Your task to perform on an android device: Go to ESPN.com Image 0: 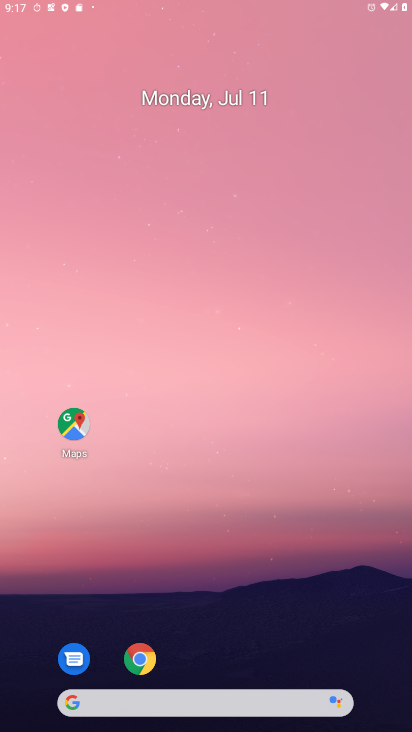
Step 0: click (355, 133)
Your task to perform on an android device: Go to ESPN.com Image 1: 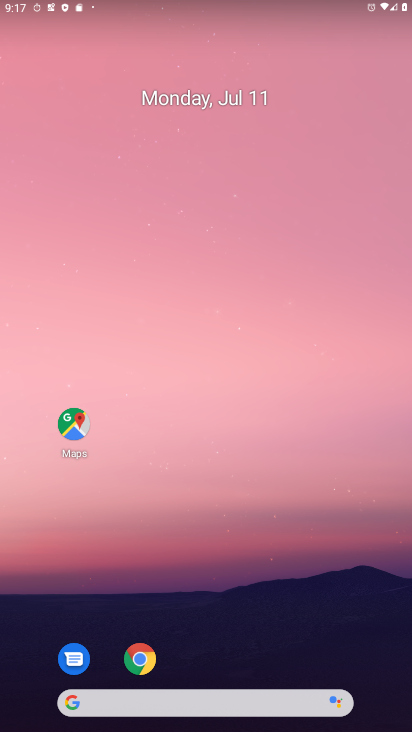
Step 1: drag from (222, 321) to (342, 274)
Your task to perform on an android device: Go to ESPN.com Image 2: 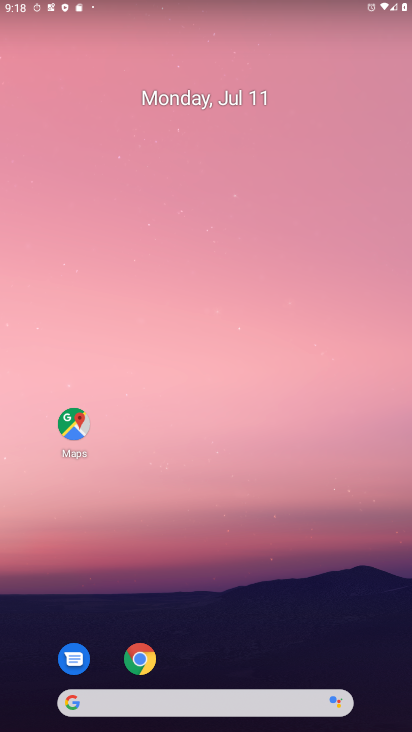
Step 2: click (252, 72)
Your task to perform on an android device: Go to ESPN.com Image 3: 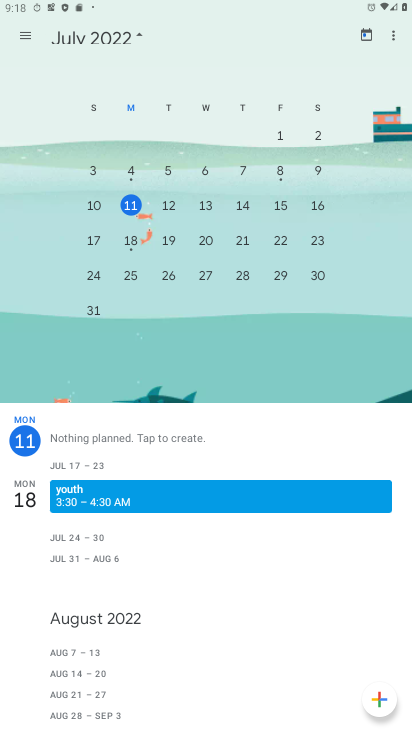
Step 3: press home button
Your task to perform on an android device: Go to ESPN.com Image 4: 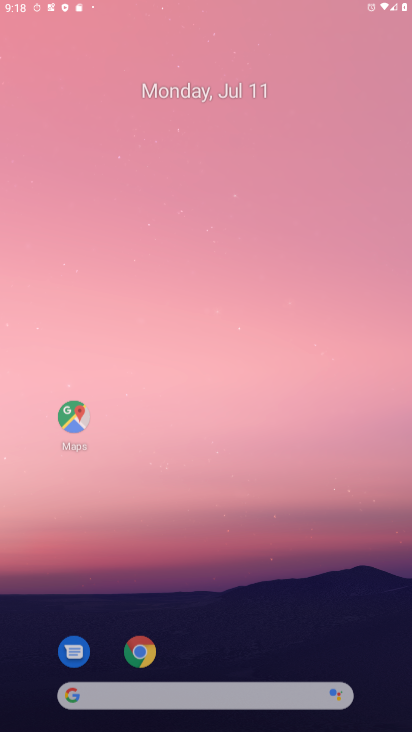
Step 4: drag from (204, 515) to (231, 99)
Your task to perform on an android device: Go to ESPN.com Image 5: 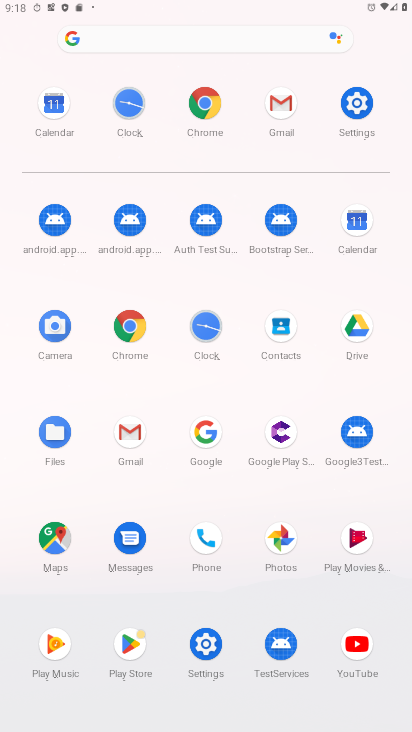
Step 5: click (152, 46)
Your task to perform on an android device: Go to ESPN.com Image 6: 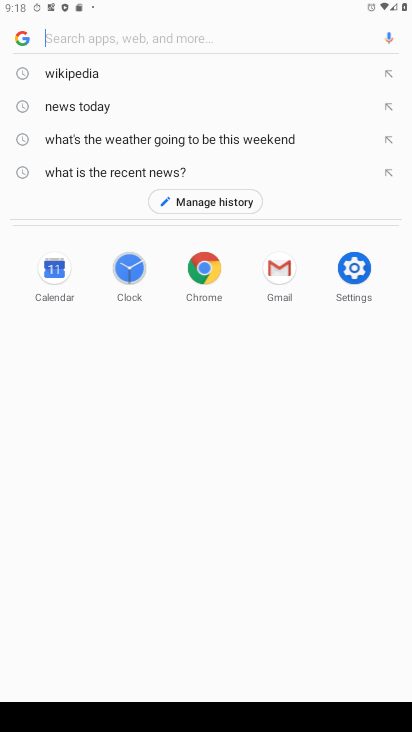
Step 6: click (394, 728)
Your task to perform on an android device: Go to ESPN.com Image 7: 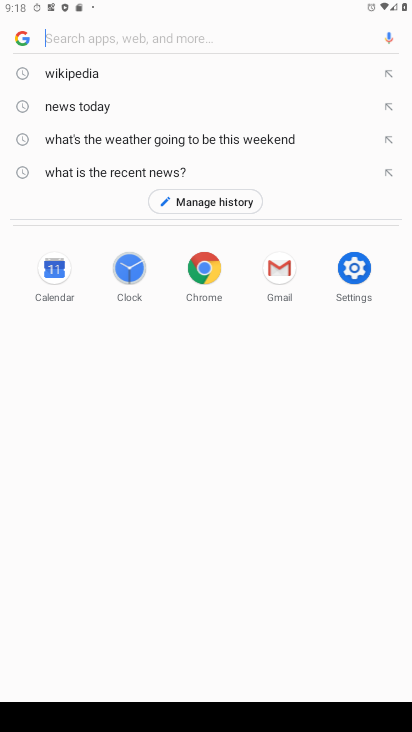
Step 7: click (58, 34)
Your task to perform on an android device: Go to ESPN.com Image 8: 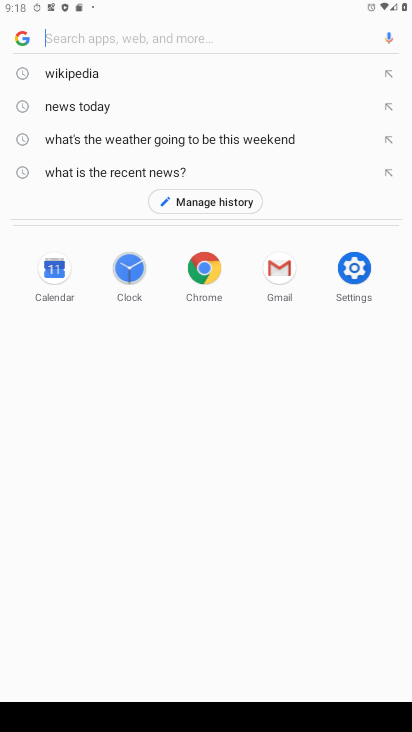
Step 8: type " ESPN.com"
Your task to perform on an android device: Go to ESPN.com Image 9: 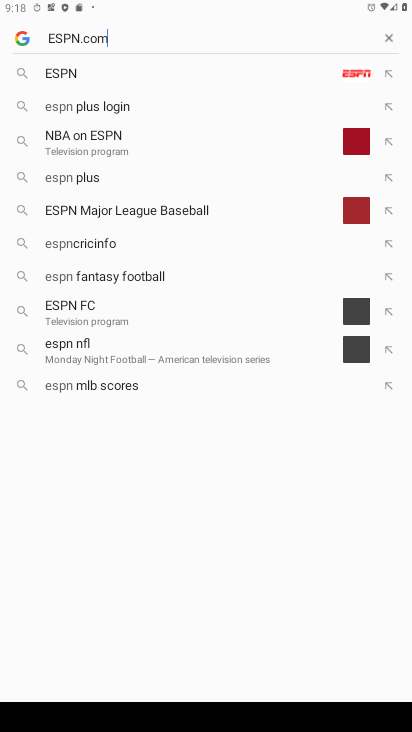
Step 9: type ""
Your task to perform on an android device: Go to ESPN.com Image 10: 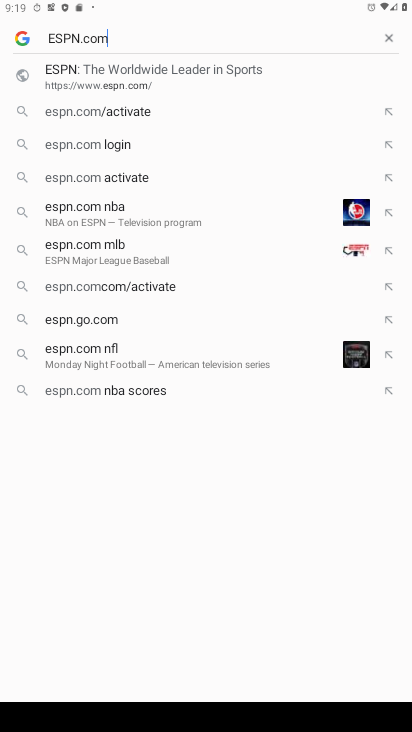
Step 10: click (106, 80)
Your task to perform on an android device: Go to ESPN.com Image 11: 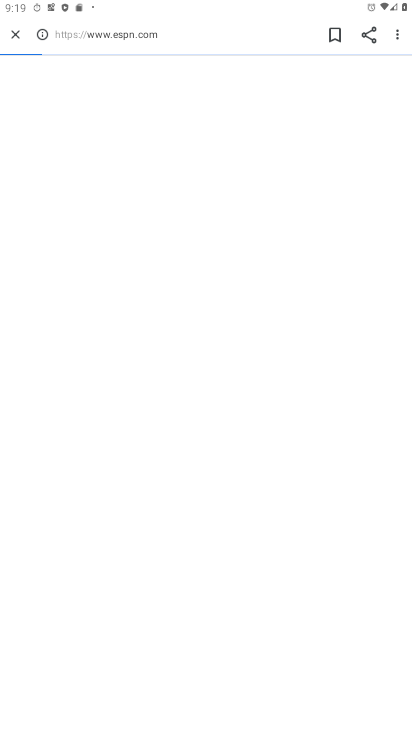
Step 11: task complete